Your task to perform on an android device: change the upload size in google photos Image 0: 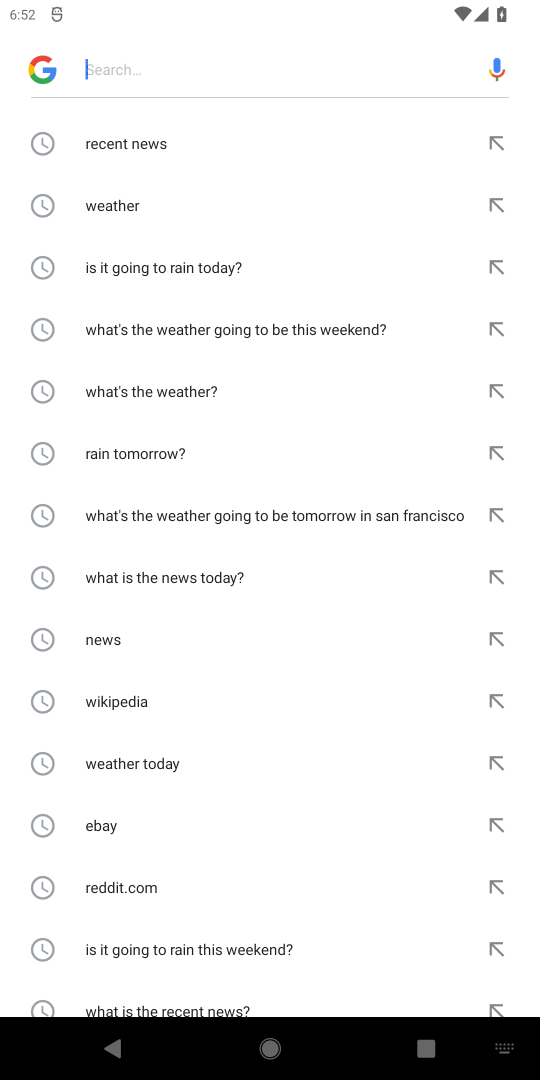
Step 0: press home button
Your task to perform on an android device: change the upload size in google photos Image 1: 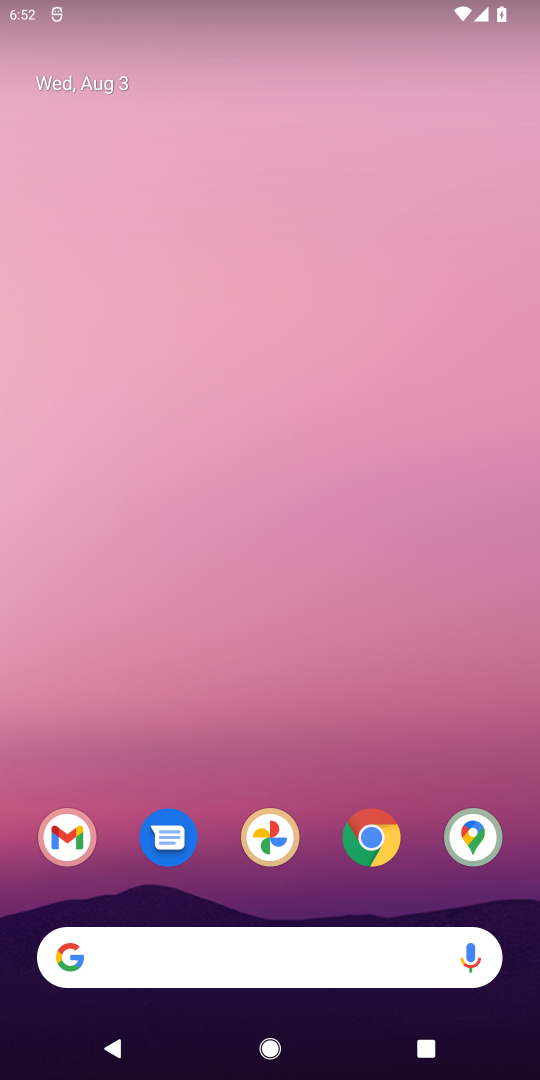
Step 1: click (258, 836)
Your task to perform on an android device: change the upload size in google photos Image 2: 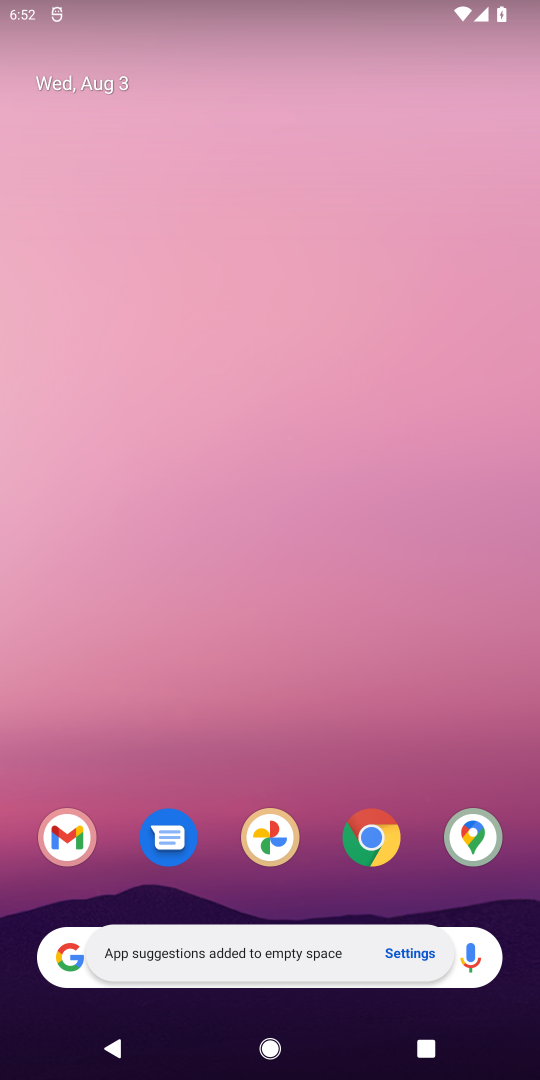
Step 2: click (258, 833)
Your task to perform on an android device: change the upload size in google photos Image 3: 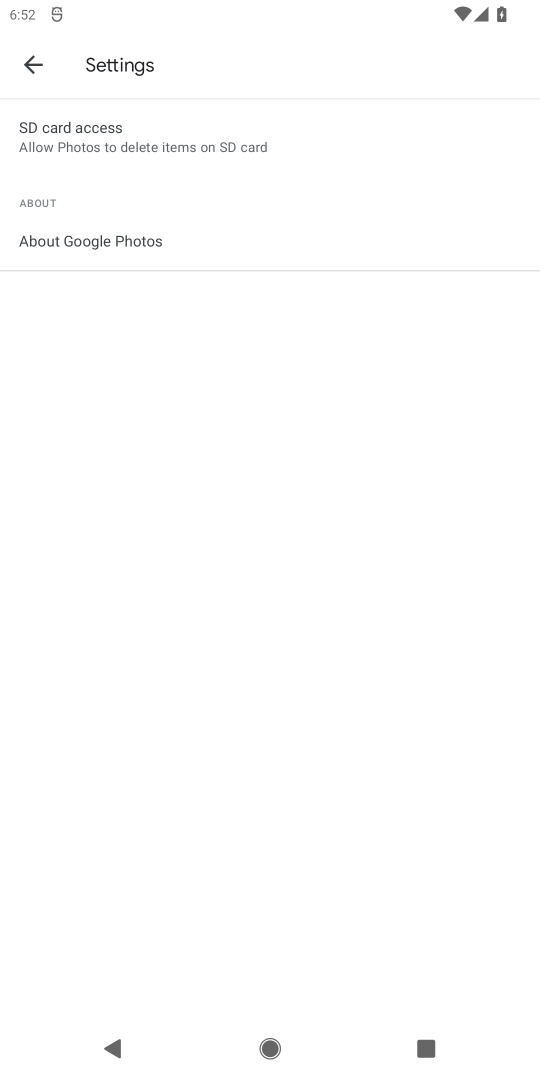
Step 3: click (20, 59)
Your task to perform on an android device: change the upload size in google photos Image 4: 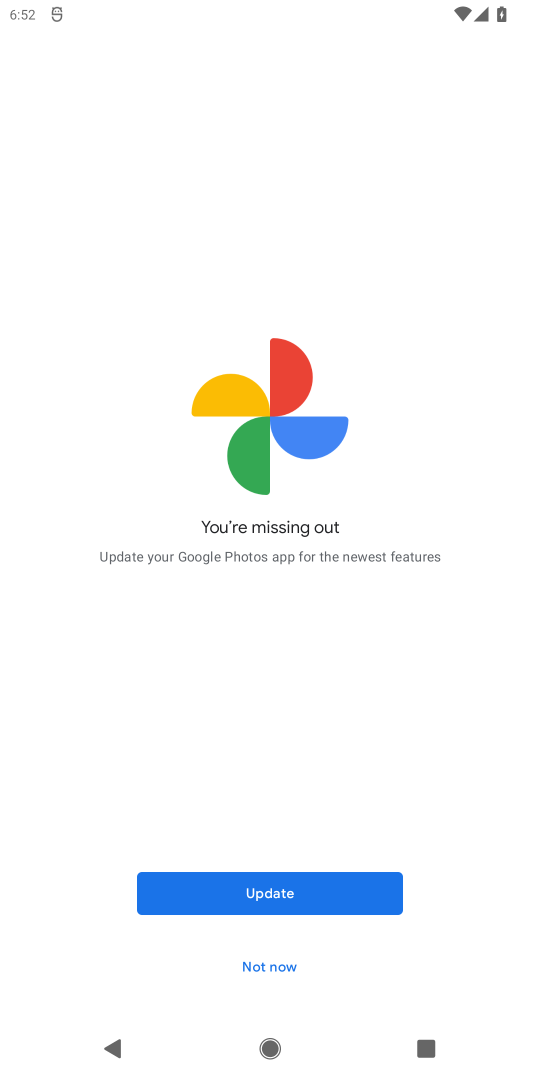
Step 4: click (273, 881)
Your task to perform on an android device: change the upload size in google photos Image 5: 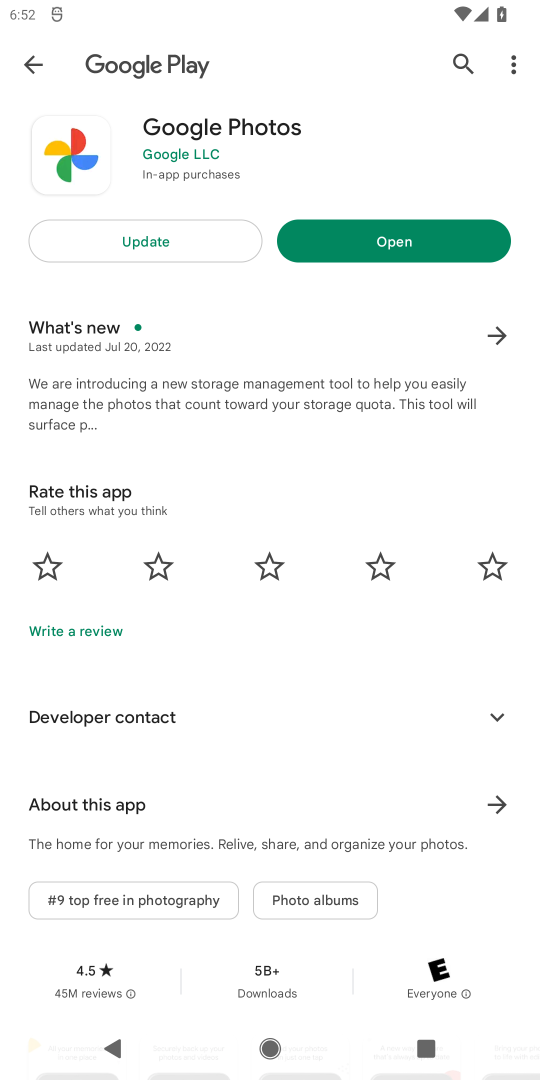
Step 5: click (149, 241)
Your task to perform on an android device: change the upload size in google photos Image 6: 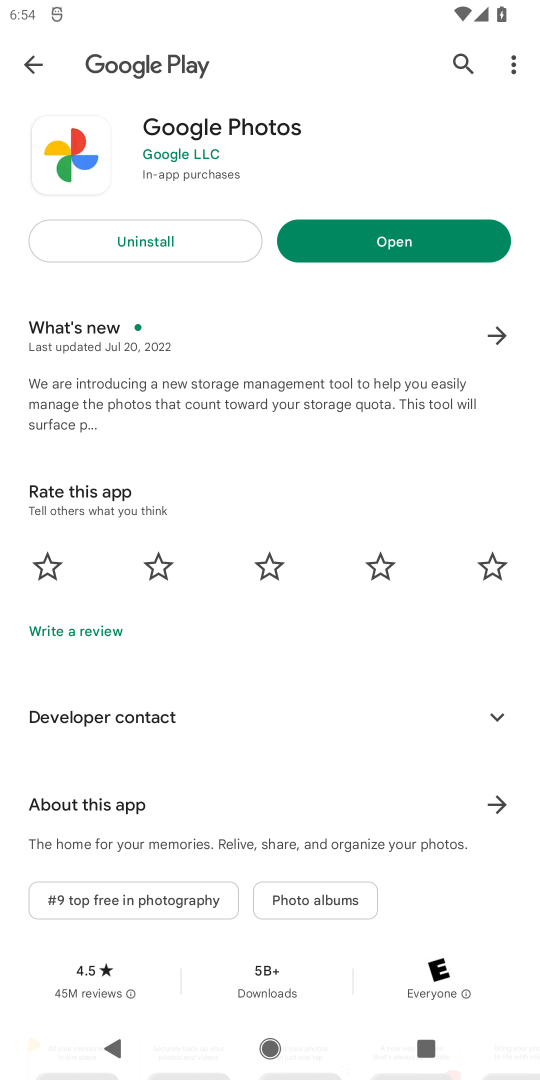
Step 6: click (391, 252)
Your task to perform on an android device: change the upload size in google photos Image 7: 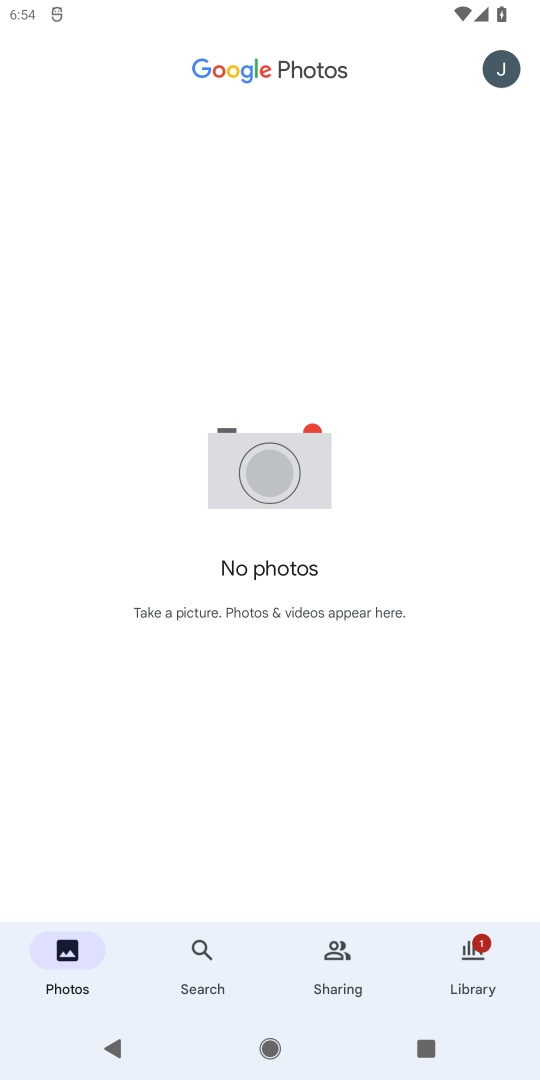
Step 7: click (510, 57)
Your task to perform on an android device: change the upload size in google photos Image 8: 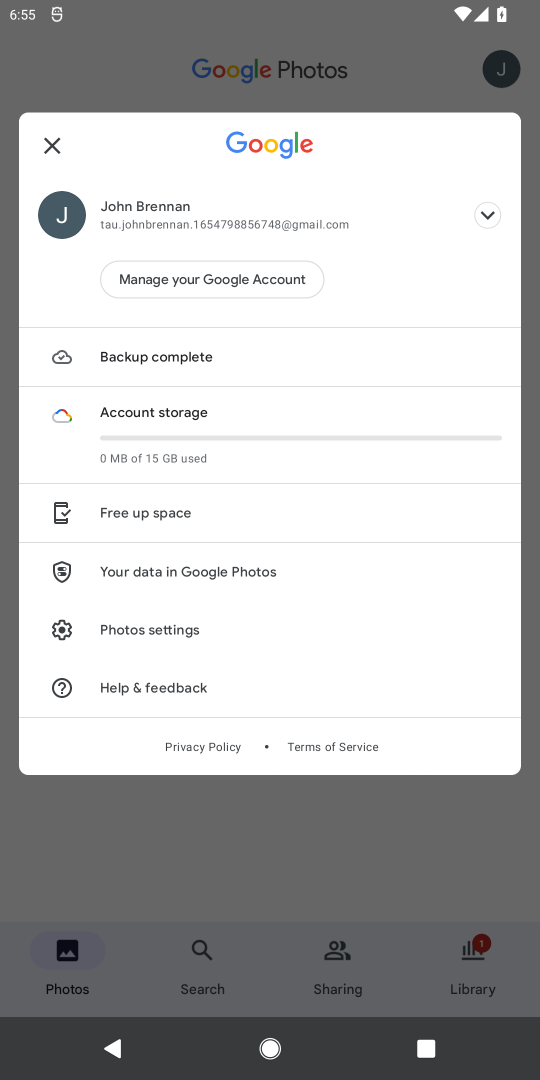
Step 8: click (134, 628)
Your task to perform on an android device: change the upload size in google photos Image 9: 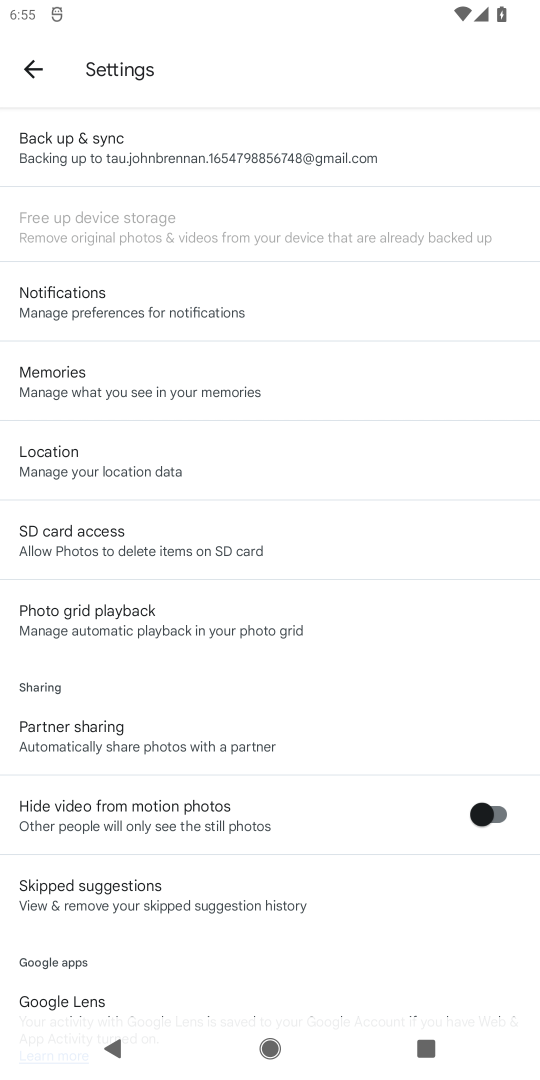
Step 9: click (103, 152)
Your task to perform on an android device: change the upload size in google photos Image 10: 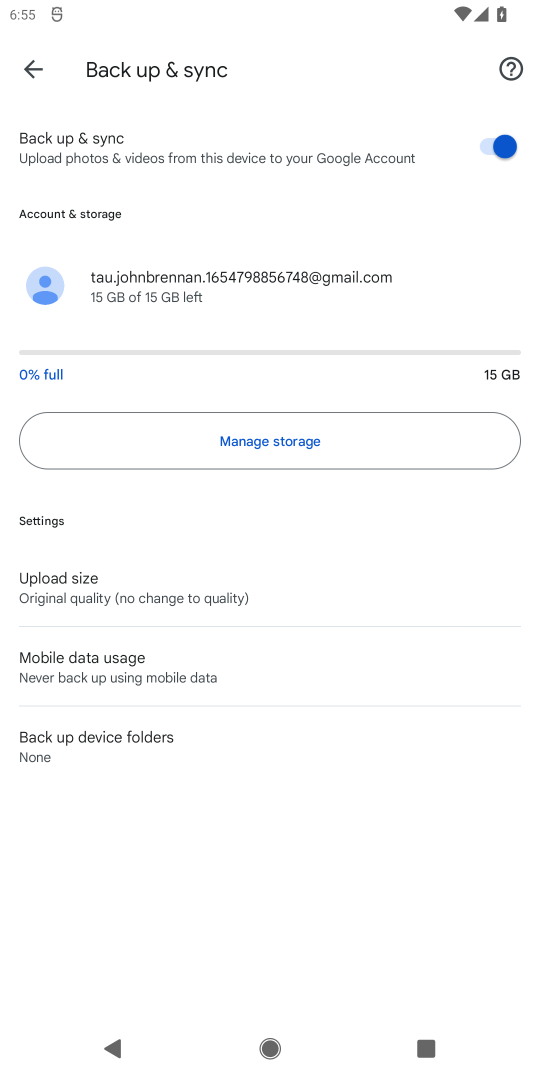
Step 10: click (116, 585)
Your task to perform on an android device: change the upload size in google photos Image 11: 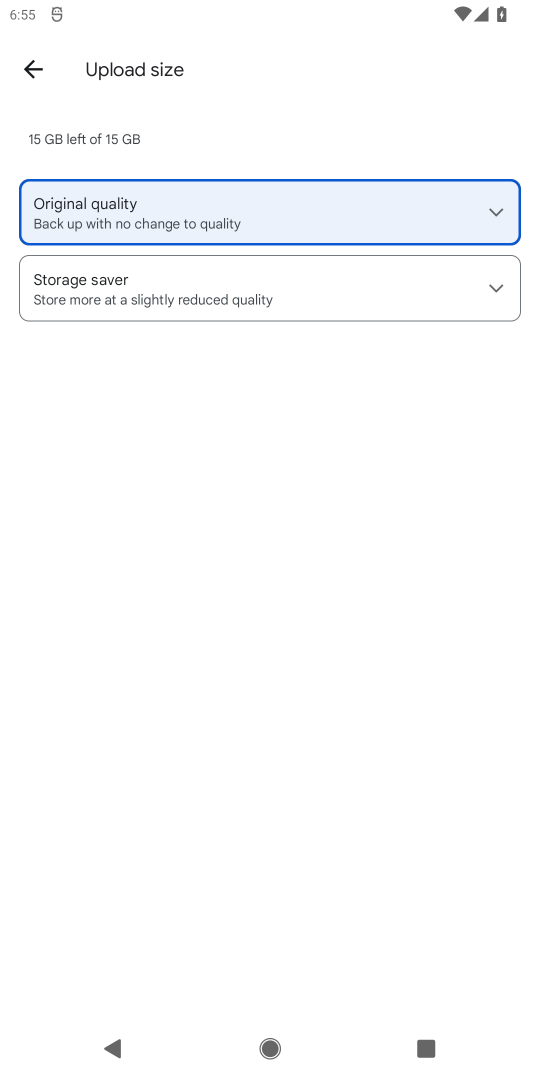
Step 11: click (175, 291)
Your task to perform on an android device: change the upload size in google photos Image 12: 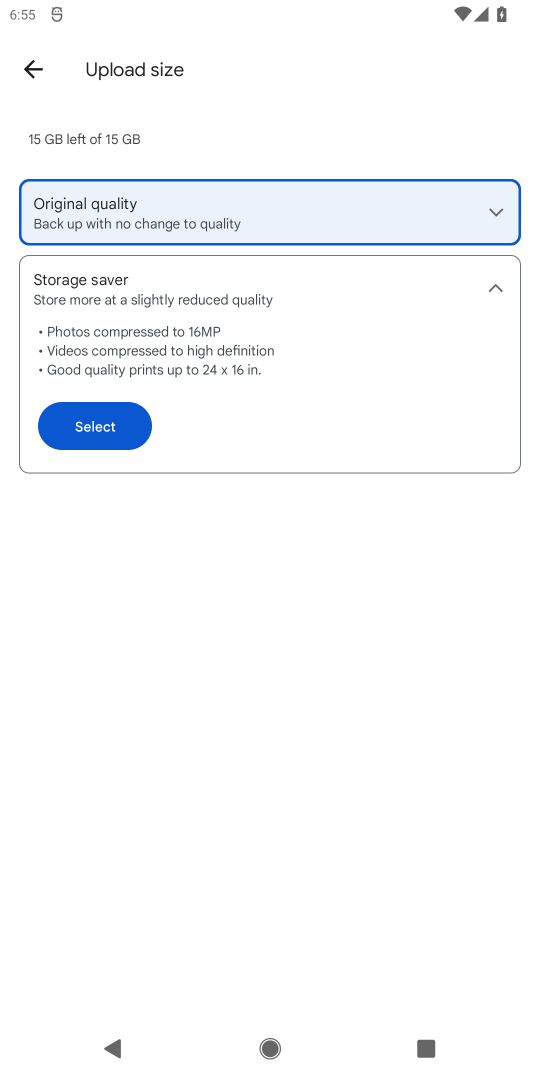
Step 12: click (92, 419)
Your task to perform on an android device: change the upload size in google photos Image 13: 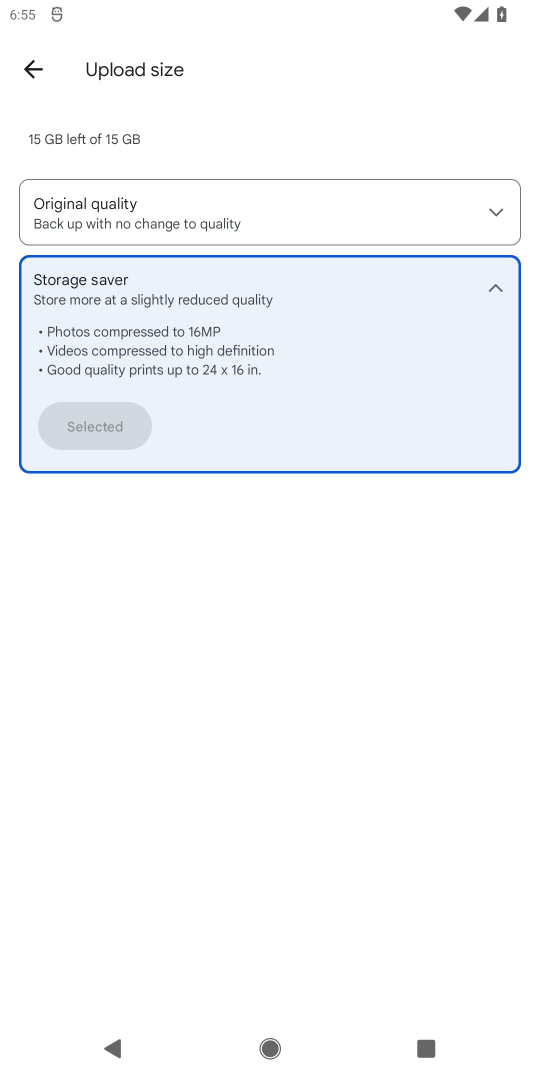
Step 13: task complete